Your task to perform on an android device: Go to Android settings Image 0: 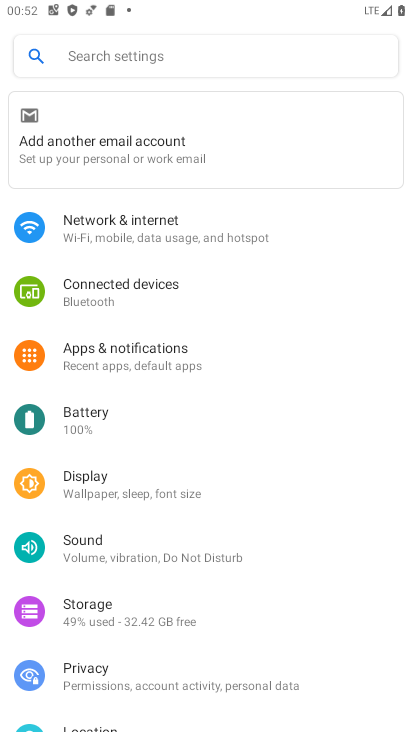
Step 0: task complete